Your task to perform on an android device: Do I have any events this weekend? Image 0: 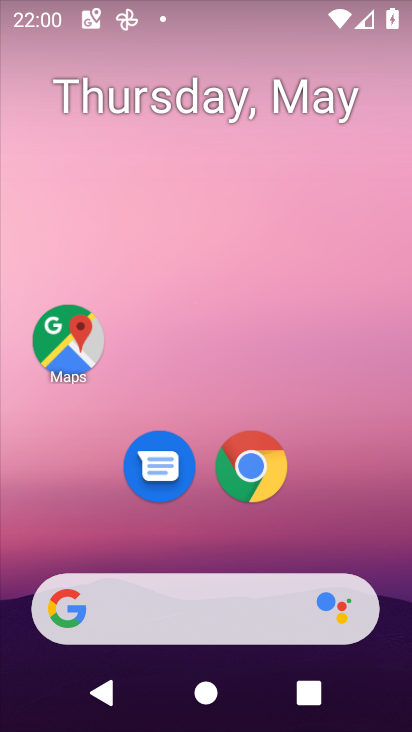
Step 0: drag from (346, 553) to (373, 107)
Your task to perform on an android device: Do I have any events this weekend? Image 1: 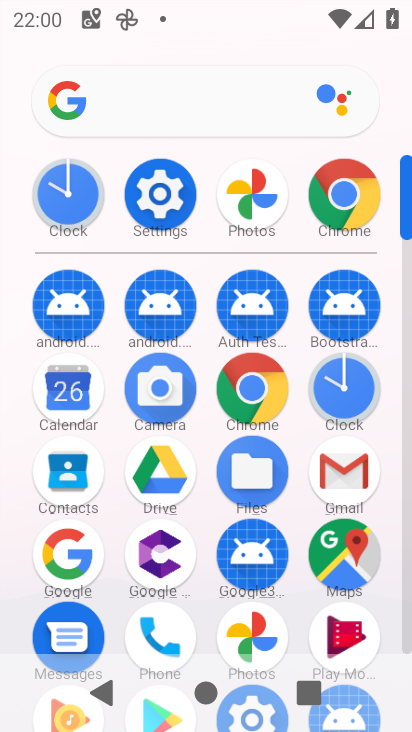
Step 1: click (61, 401)
Your task to perform on an android device: Do I have any events this weekend? Image 2: 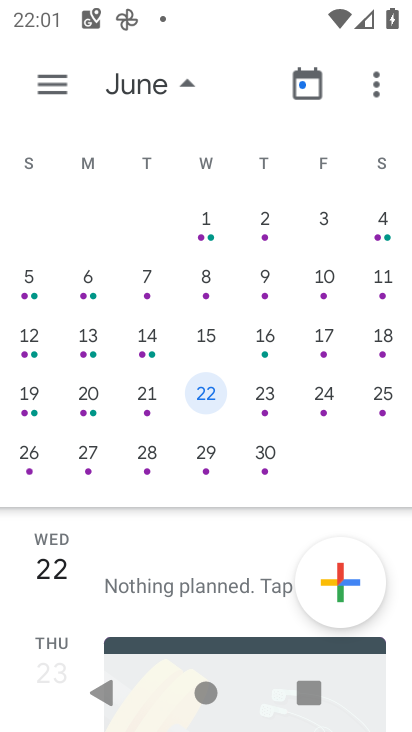
Step 2: task complete